Your task to perform on an android device: Go to Wikipedia Image 0: 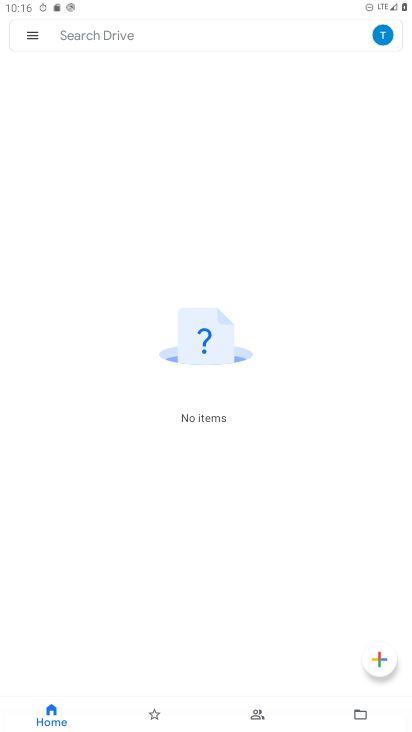
Step 0: press home button
Your task to perform on an android device: Go to Wikipedia Image 1: 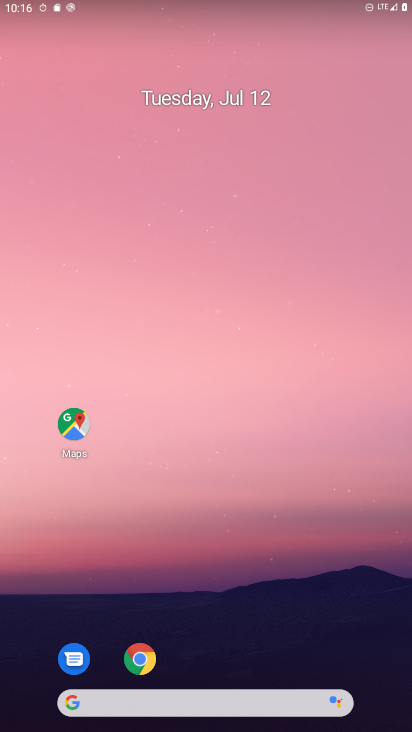
Step 1: drag from (402, 678) to (186, 0)
Your task to perform on an android device: Go to Wikipedia Image 2: 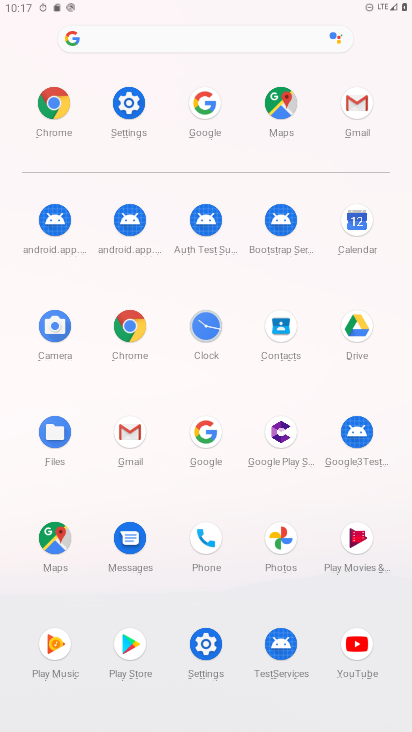
Step 2: click (210, 442)
Your task to perform on an android device: Go to Wikipedia Image 3: 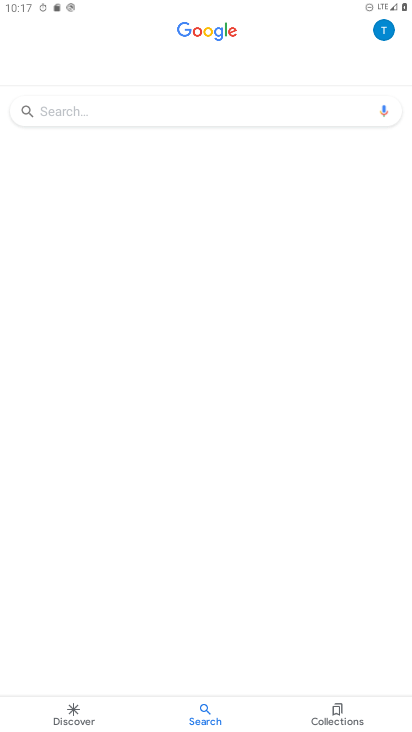
Step 3: click (125, 116)
Your task to perform on an android device: Go to Wikipedia Image 4: 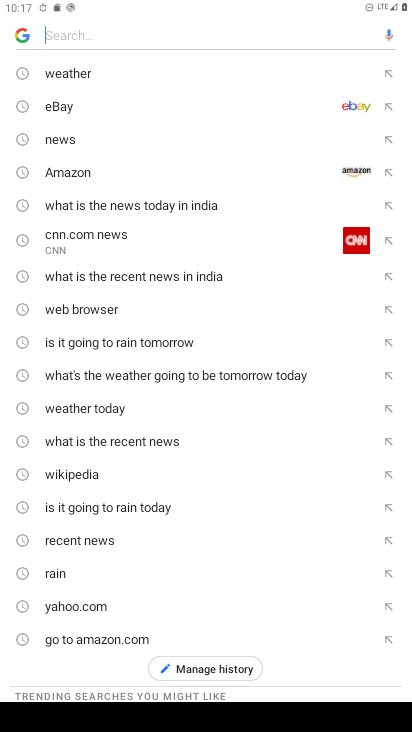
Step 4: type " Wikipedia"
Your task to perform on an android device: Go to Wikipedia Image 5: 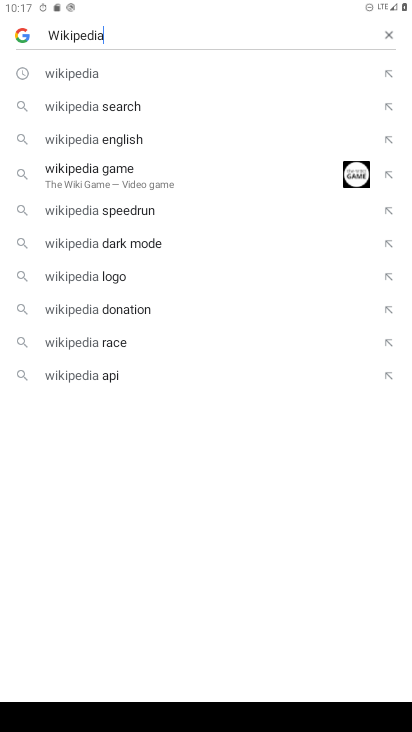
Step 5: click (116, 74)
Your task to perform on an android device: Go to Wikipedia Image 6: 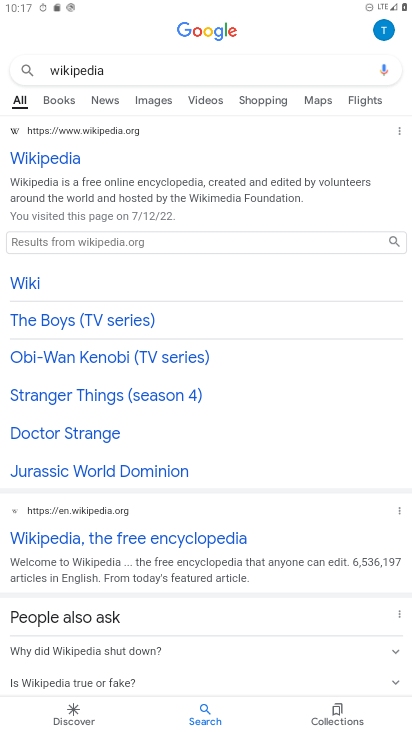
Step 6: task complete